Your task to perform on an android device: Show me popular videos on Youtube Image 0: 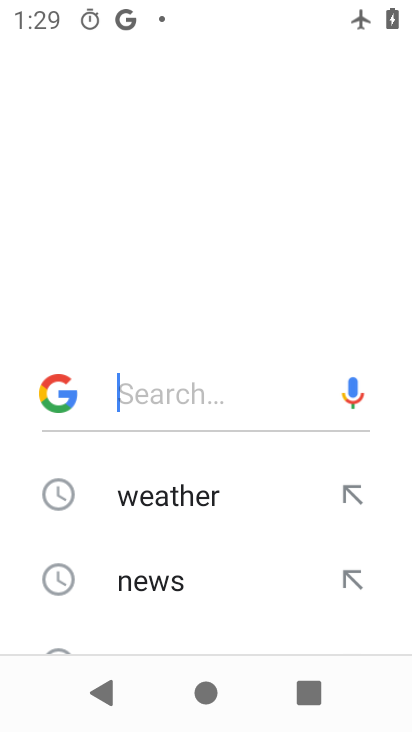
Step 0: drag from (292, 526) to (239, 204)
Your task to perform on an android device: Show me popular videos on Youtube Image 1: 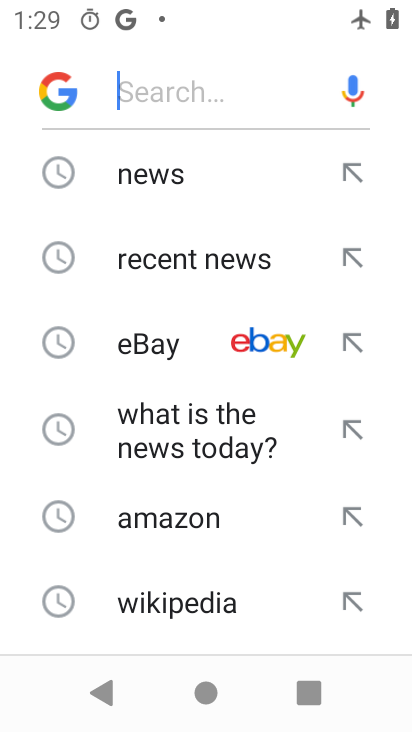
Step 1: press home button
Your task to perform on an android device: Show me popular videos on Youtube Image 2: 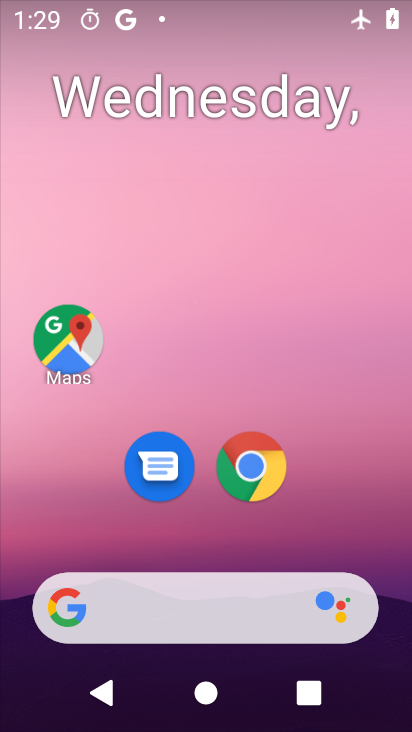
Step 2: drag from (296, 516) to (260, 115)
Your task to perform on an android device: Show me popular videos on Youtube Image 3: 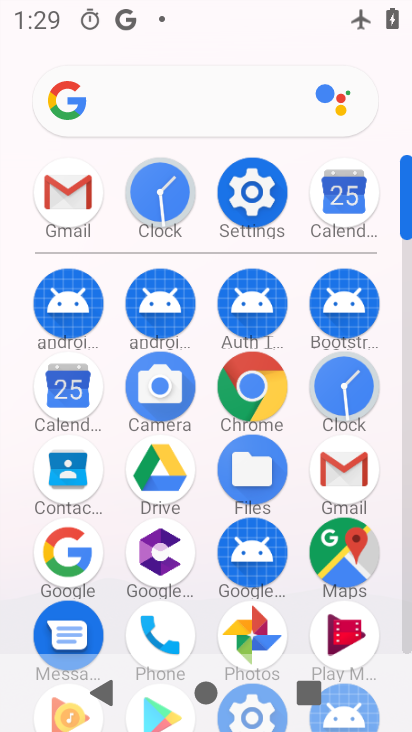
Step 3: drag from (287, 538) to (299, 178)
Your task to perform on an android device: Show me popular videos on Youtube Image 4: 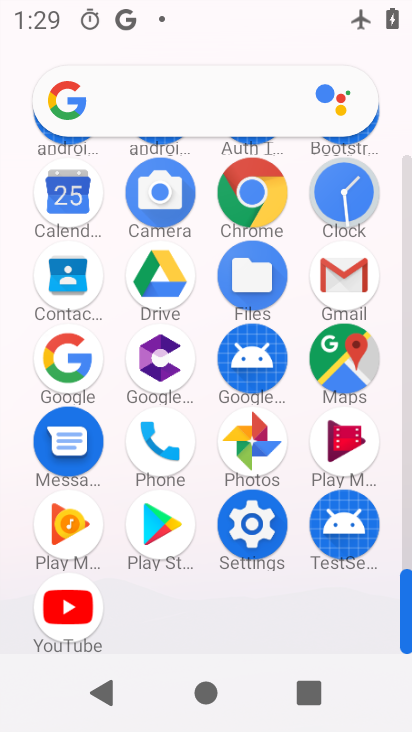
Step 4: click (45, 593)
Your task to perform on an android device: Show me popular videos on Youtube Image 5: 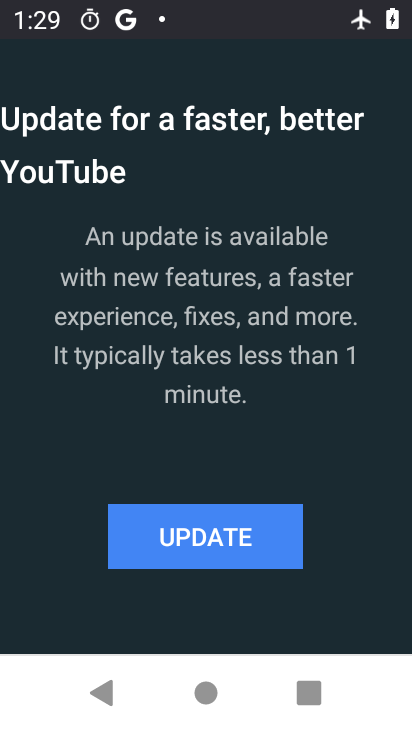
Step 5: click (163, 543)
Your task to perform on an android device: Show me popular videos on Youtube Image 6: 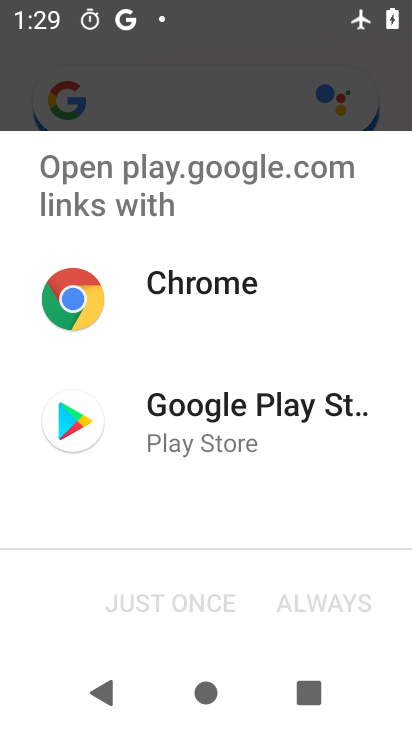
Step 6: click (206, 450)
Your task to perform on an android device: Show me popular videos on Youtube Image 7: 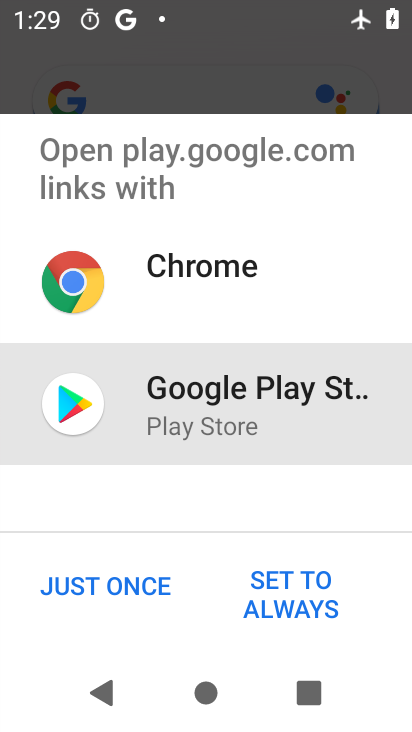
Step 7: click (143, 580)
Your task to perform on an android device: Show me popular videos on Youtube Image 8: 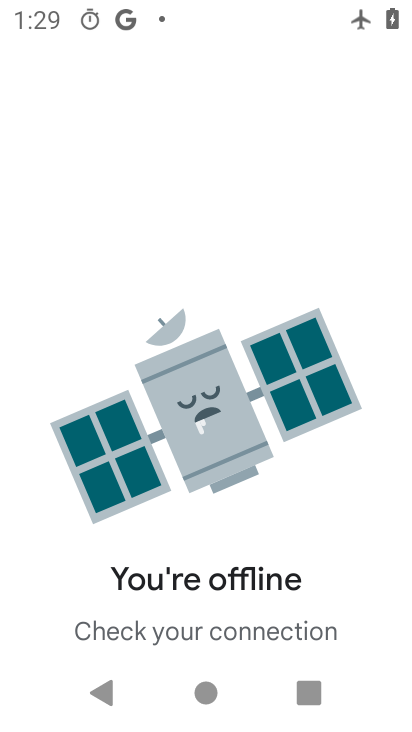
Step 8: task complete